Your task to perform on an android device: uninstall "Google Play Music" Image 0: 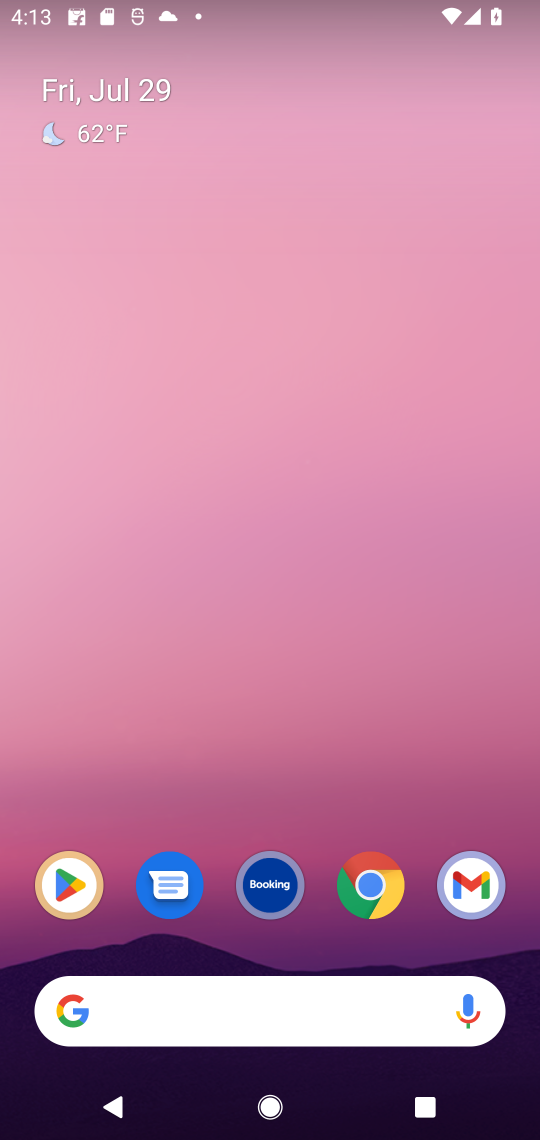
Step 0: click (72, 898)
Your task to perform on an android device: uninstall "Google Play Music" Image 1: 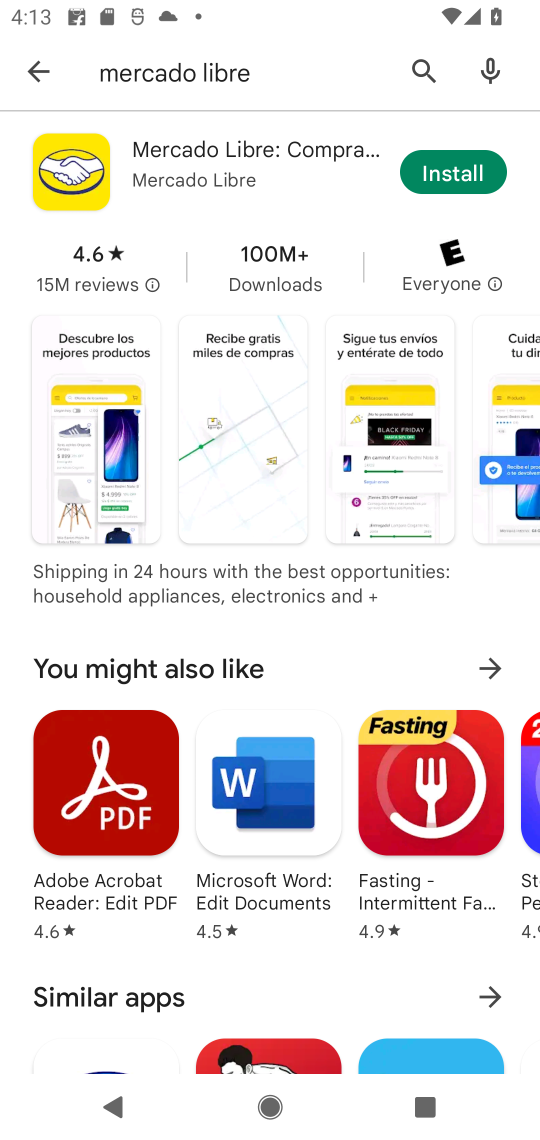
Step 1: click (419, 70)
Your task to perform on an android device: uninstall "Google Play Music" Image 2: 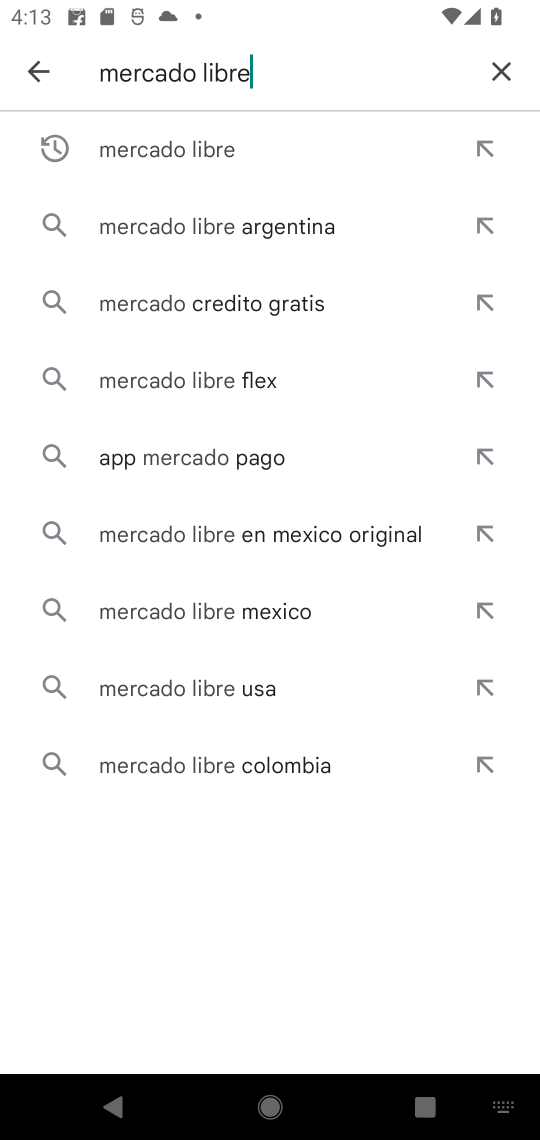
Step 2: click (502, 74)
Your task to perform on an android device: uninstall "Google Play Music" Image 3: 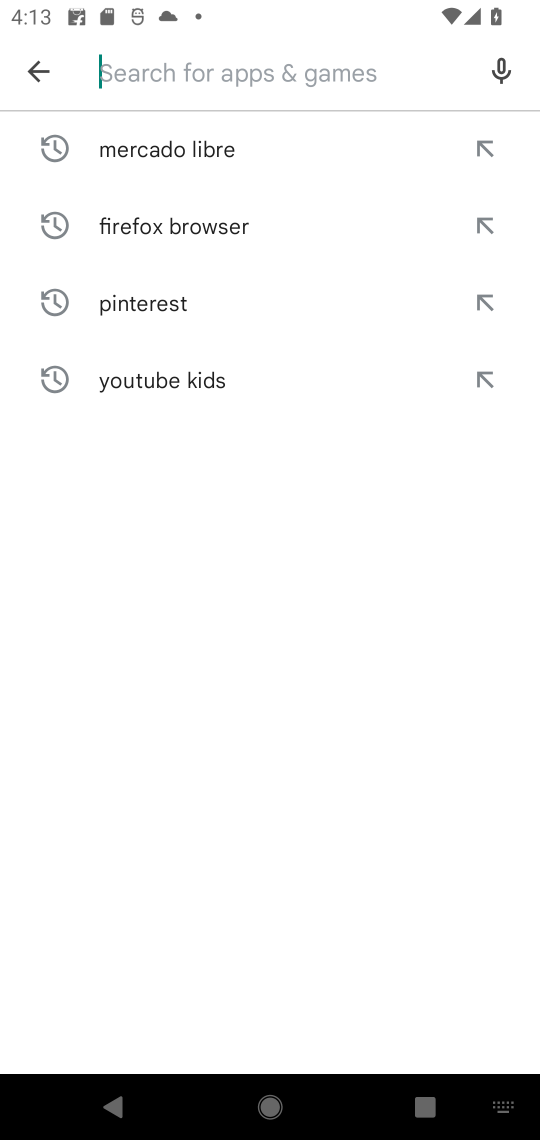
Step 3: type "Google Play Music"
Your task to perform on an android device: uninstall "Google Play Music" Image 4: 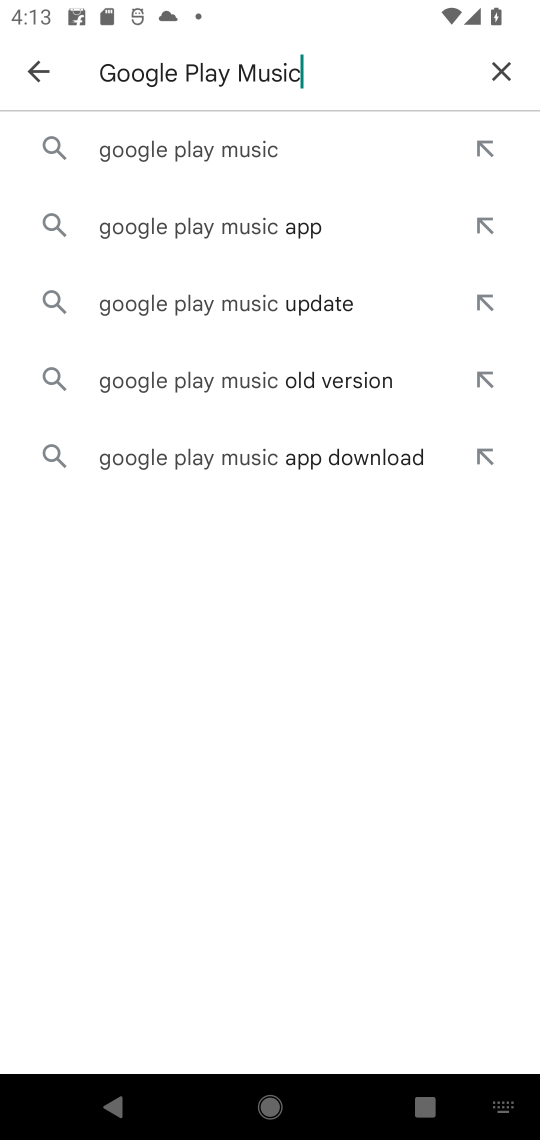
Step 4: click (228, 153)
Your task to perform on an android device: uninstall "Google Play Music" Image 5: 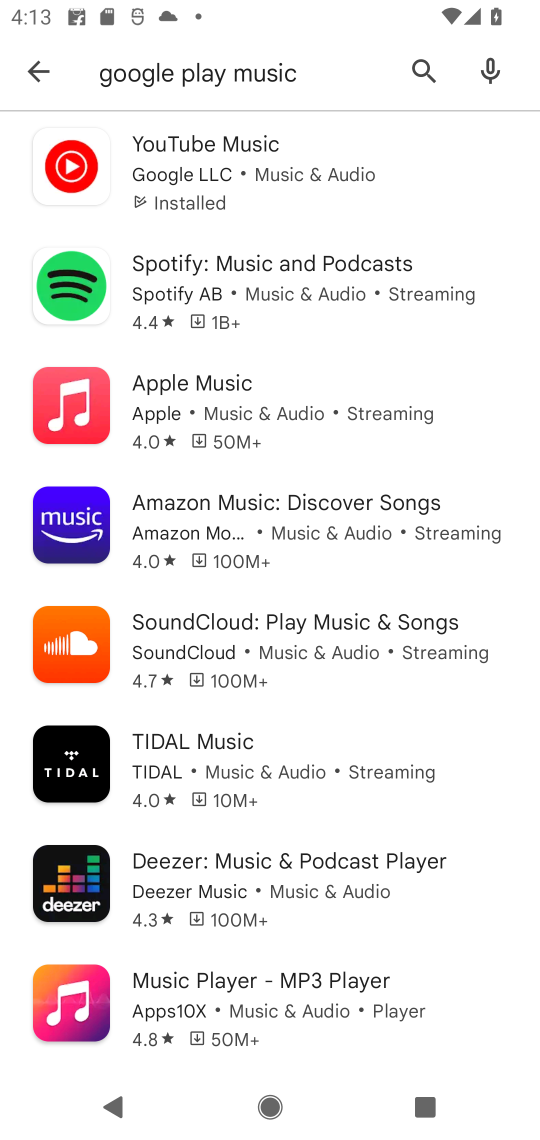
Step 5: task complete